Your task to perform on an android device: Turn on the flashlight Image 0: 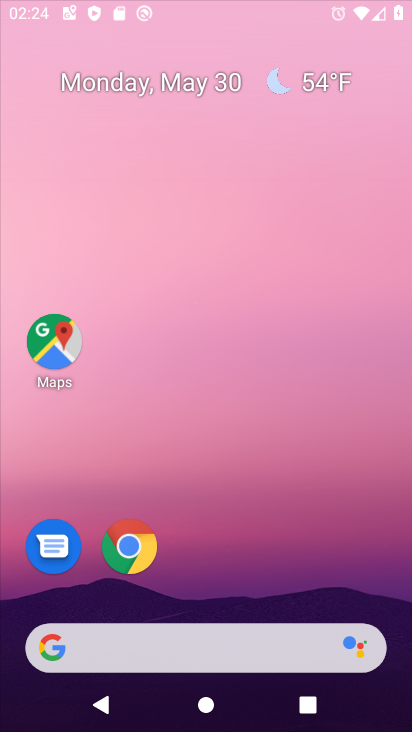
Step 0: press home button
Your task to perform on an android device: Turn on the flashlight Image 1: 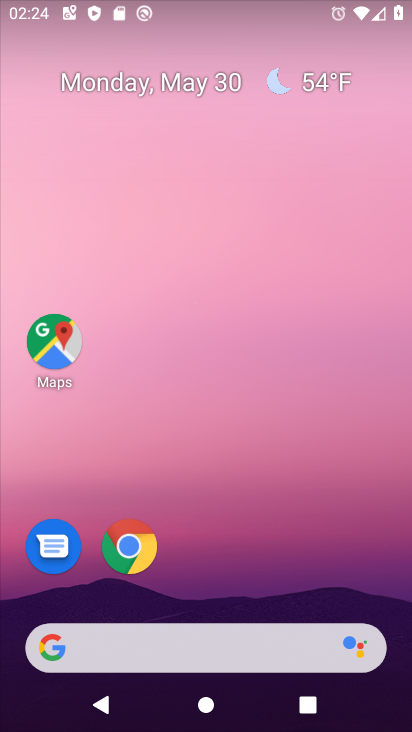
Step 1: drag from (212, 604) to (303, 95)
Your task to perform on an android device: Turn on the flashlight Image 2: 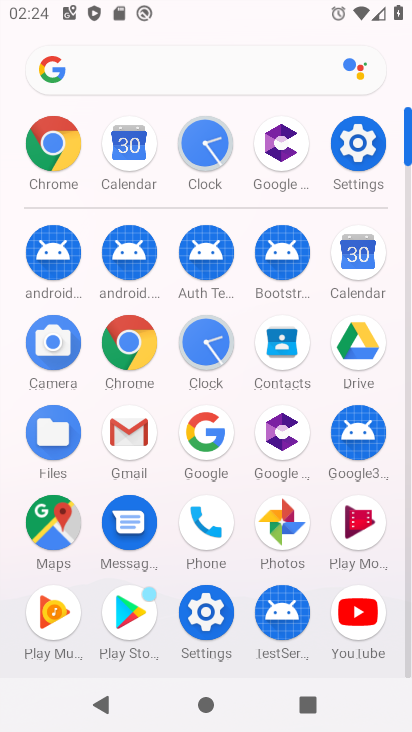
Step 2: click (353, 135)
Your task to perform on an android device: Turn on the flashlight Image 3: 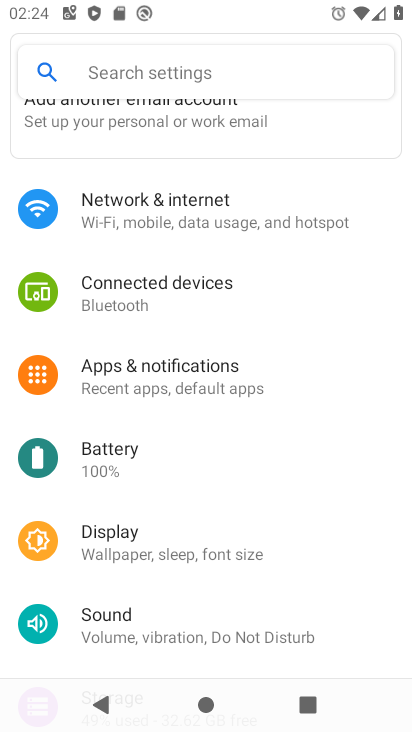
Step 3: click (164, 65)
Your task to perform on an android device: Turn on the flashlight Image 4: 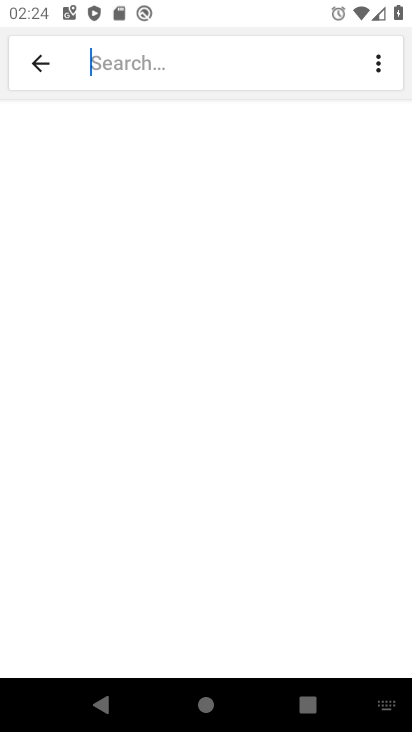
Step 4: type "flashlight"
Your task to perform on an android device: Turn on the flashlight Image 5: 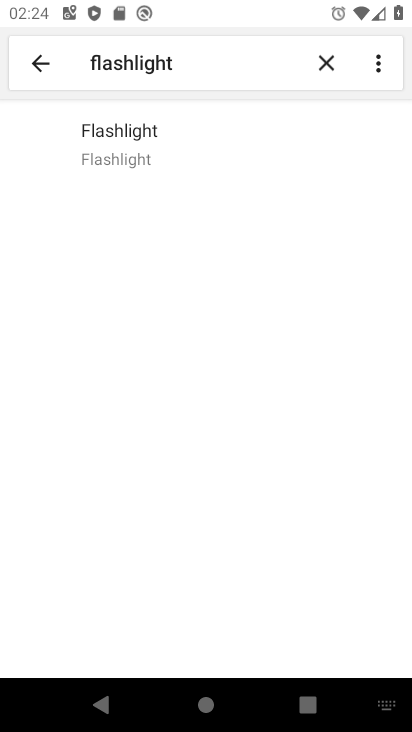
Step 5: click (172, 138)
Your task to perform on an android device: Turn on the flashlight Image 6: 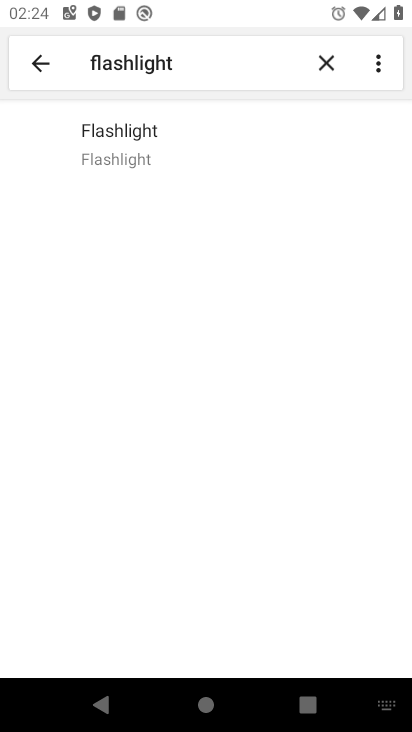
Step 6: task complete